Your task to perform on an android device: Turn off the flashlight Image 0: 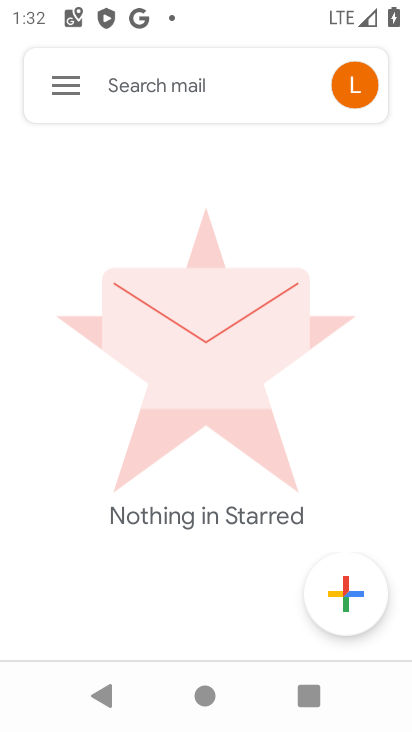
Step 0: press home button
Your task to perform on an android device: Turn off the flashlight Image 1: 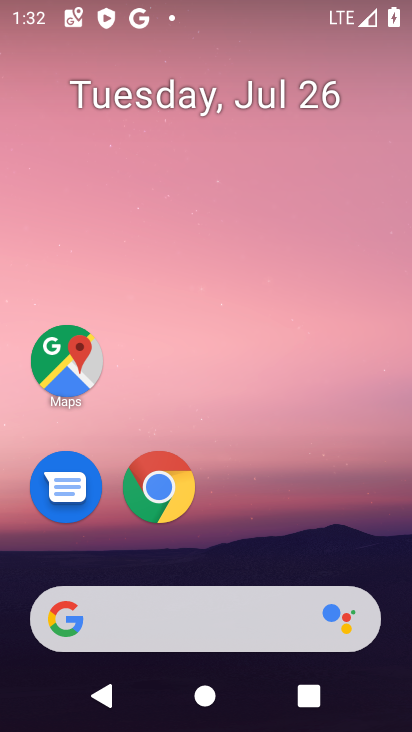
Step 1: task complete